Your task to perform on an android device: Open Maps and search for coffee Image 0: 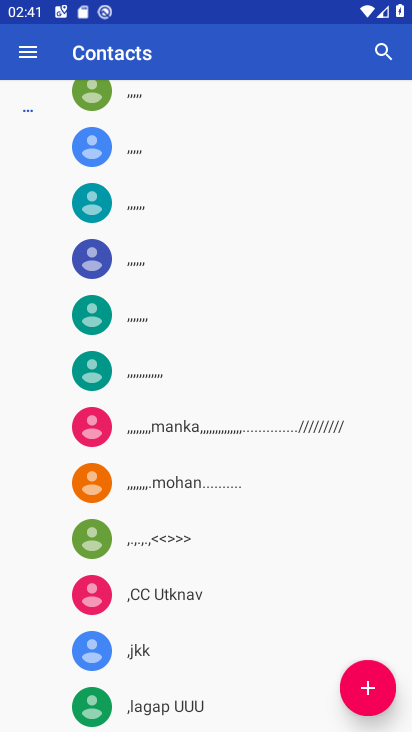
Step 0: press back button
Your task to perform on an android device: Open Maps and search for coffee Image 1: 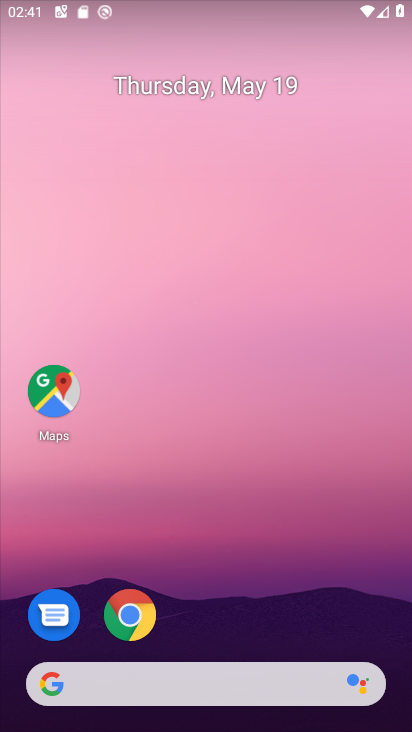
Step 1: drag from (297, 549) to (270, 69)
Your task to perform on an android device: Open Maps and search for coffee Image 2: 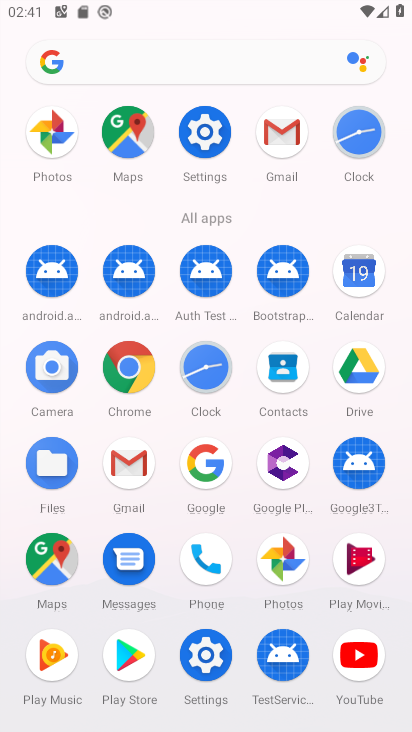
Step 2: drag from (8, 542) to (0, 269)
Your task to perform on an android device: Open Maps and search for coffee Image 3: 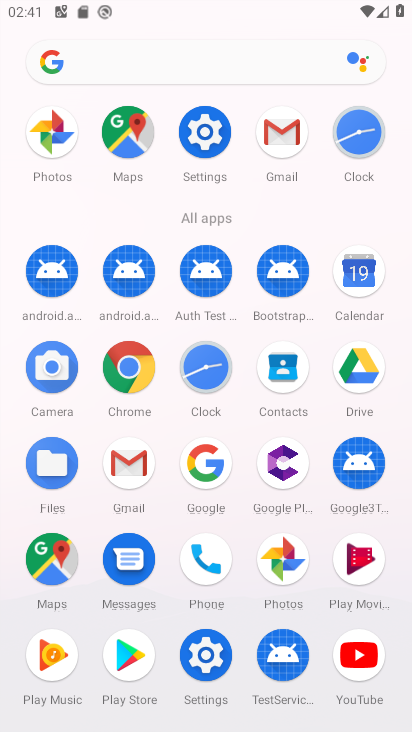
Step 3: click (47, 555)
Your task to perform on an android device: Open Maps and search for coffee Image 4: 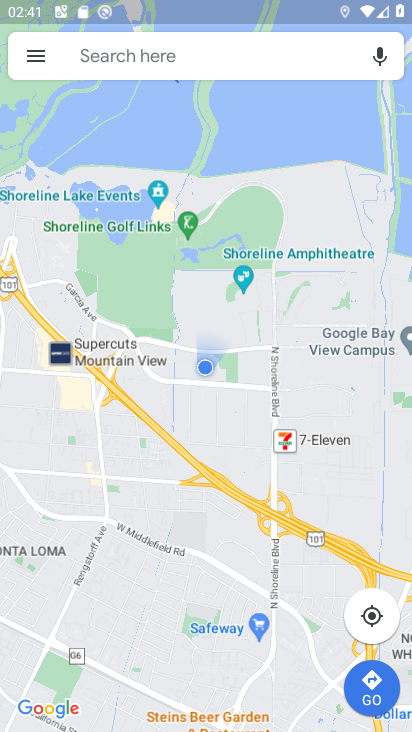
Step 4: click (193, 62)
Your task to perform on an android device: Open Maps and search for coffee Image 5: 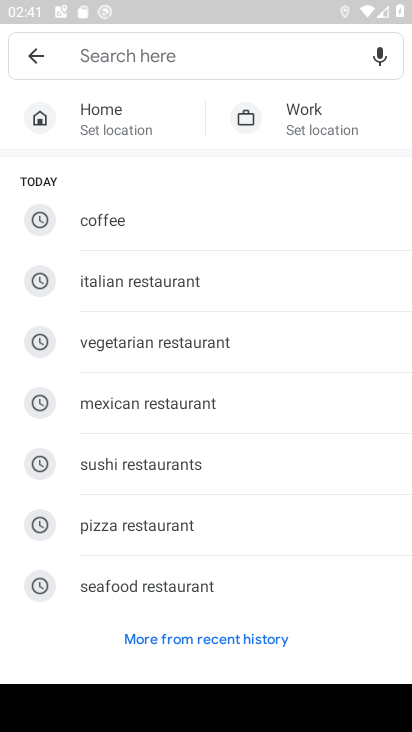
Step 5: click (168, 230)
Your task to perform on an android device: Open Maps and search for coffee Image 6: 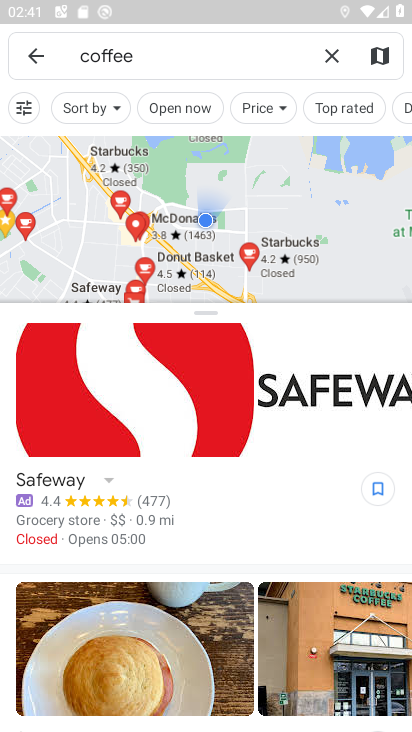
Step 6: task complete